Your task to perform on an android device: Open Google Maps Image 0: 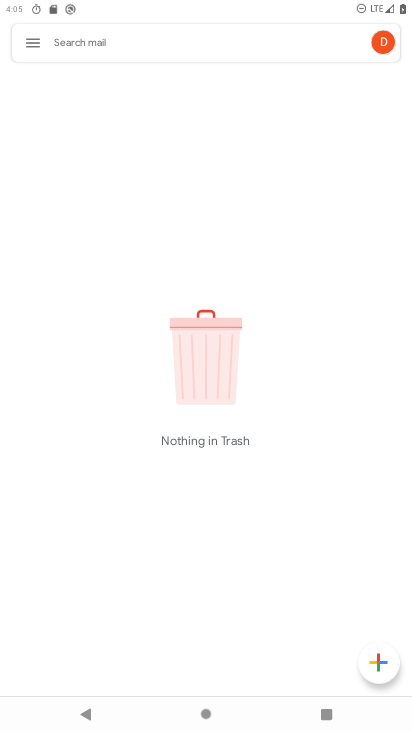
Step 0: press home button
Your task to perform on an android device: Open Google Maps Image 1: 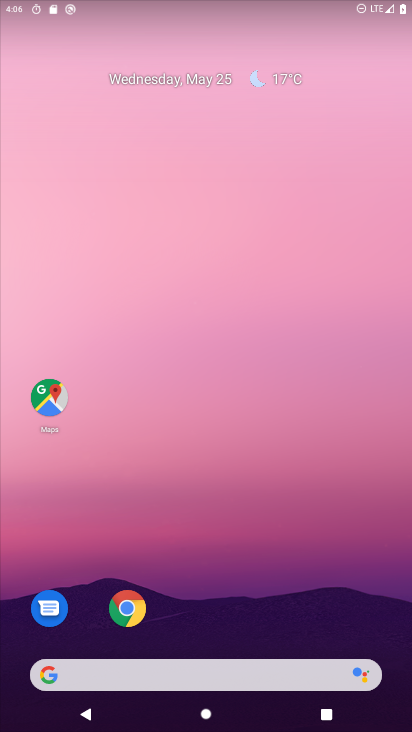
Step 1: click (46, 392)
Your task to perform on an android device: Open Google Maps Image 2: 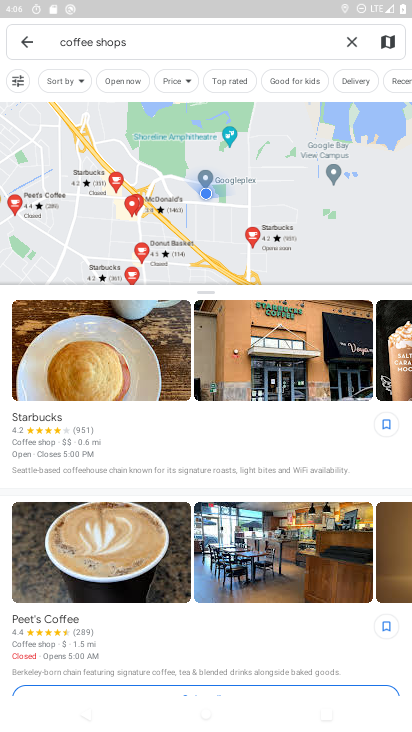
Step 2: task complete